Your task to perform on an android device: turn on translation in the chrome app Image 0: 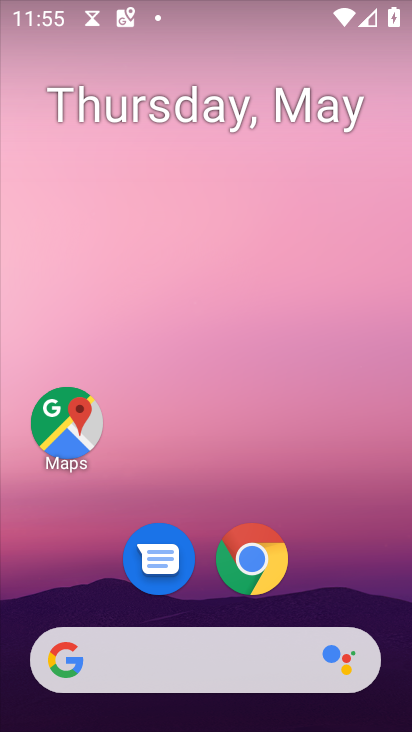
Step 0: click (252, 559)
Your task to perform on an android device: turn on translation in the chrome app Image 1: 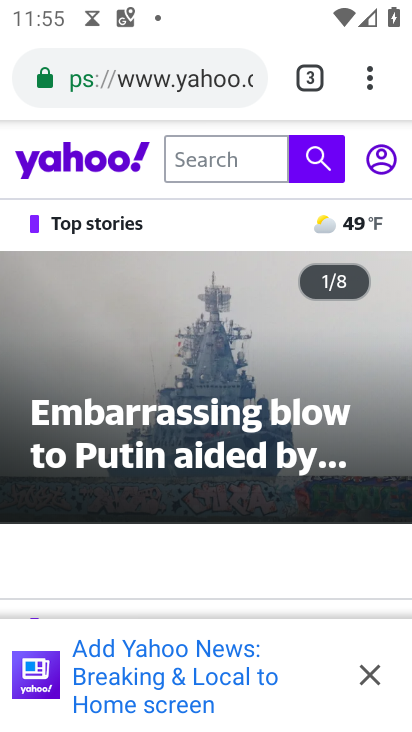
Step 1: drag from (369, 86) to (188, 605)
Your task to perform on an android device: turn on translation in the chrome app Image 2: 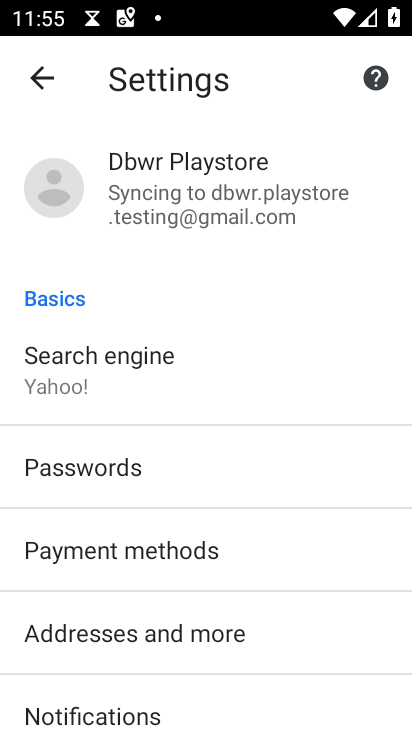
Step 2: drag from (168, 697) to (181, 243)
Your task to perform on an android device: turn on translation in the chrome app Image 3: 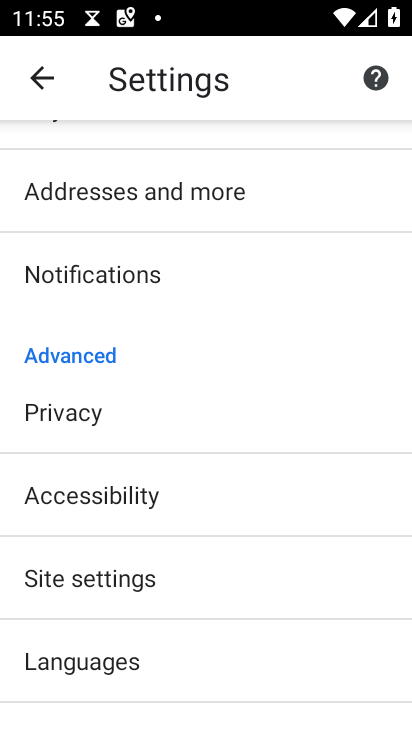
Step 3: drag from (168, 653) to (181, 385)
Your task to perform on an android device: turn on translation in the chrome app Image 4: 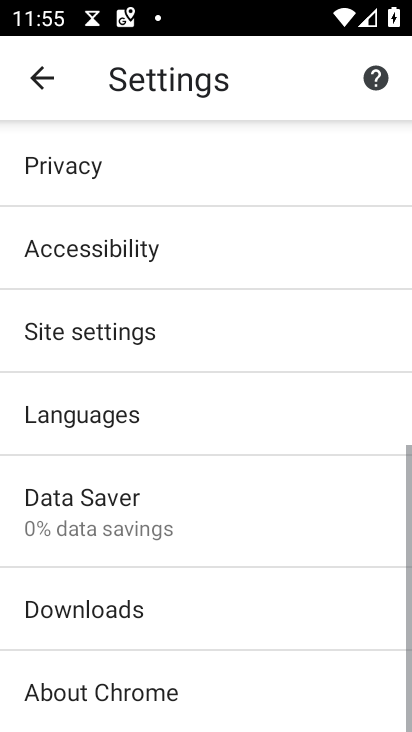
Step 4: click (119, 416)
Your task to perform on an android device: turn on translation in the chrome app Image 5: 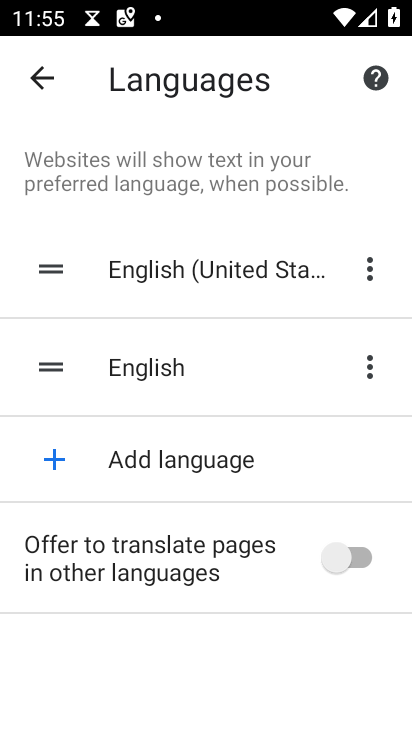
Step 5: click (354, 552)
Your task to perform on an android device: turn on translation in the chrome app Image 6: 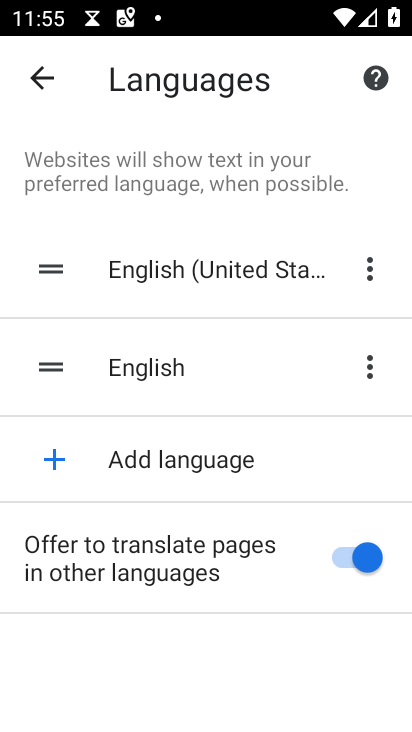
Step 6: task complete